Your task to perform on an android device: uninstall "PlayWell" Image 0: 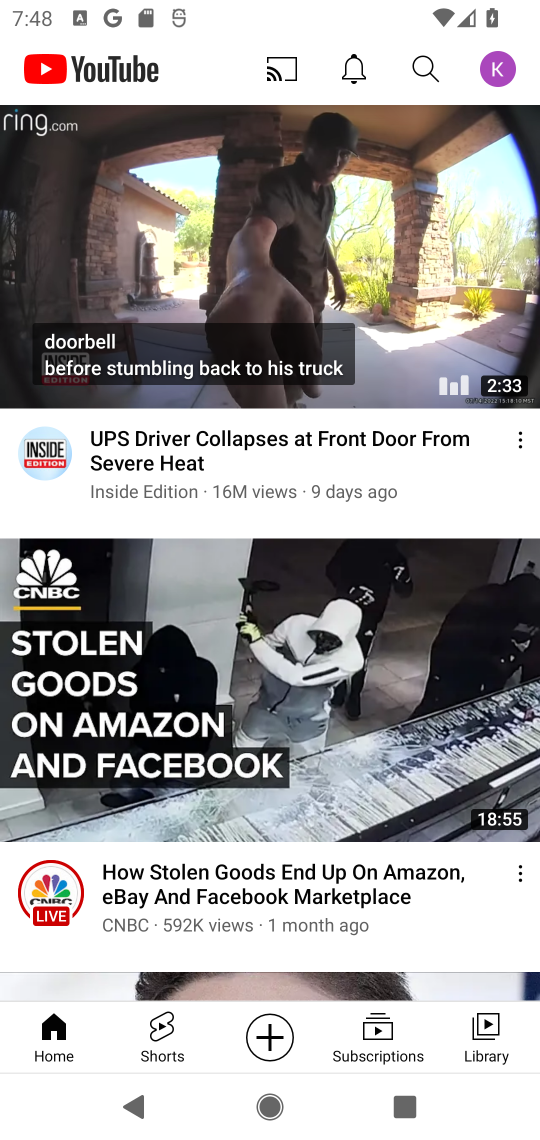
Step 0: press home button
Your task to perform on an android device: uninstall "PlayWell" Image 1: 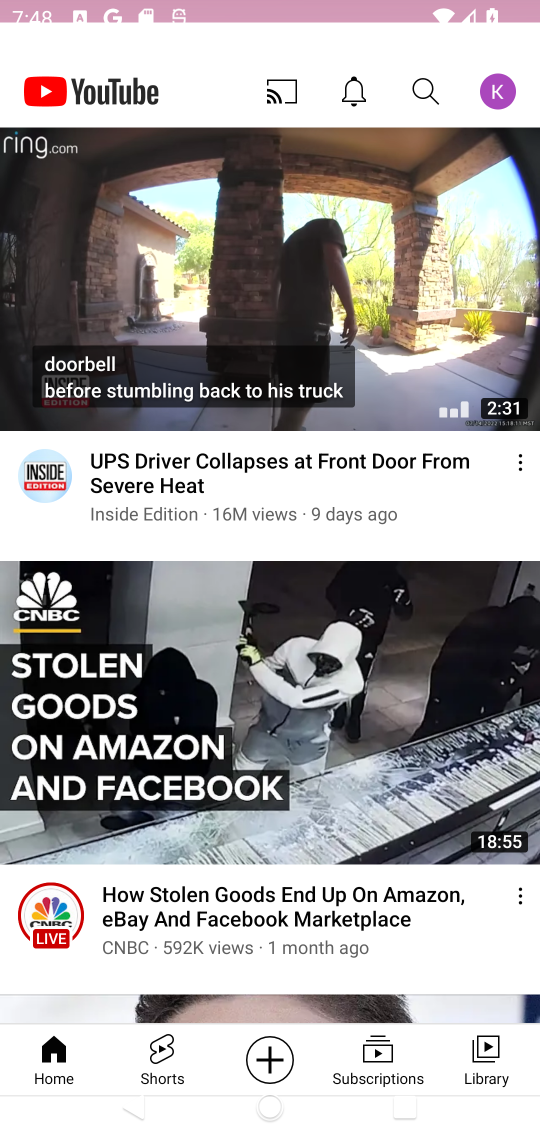
Step 1: press home button
Your task to perform on an android device: uninstall "PlayWell" Image 2: 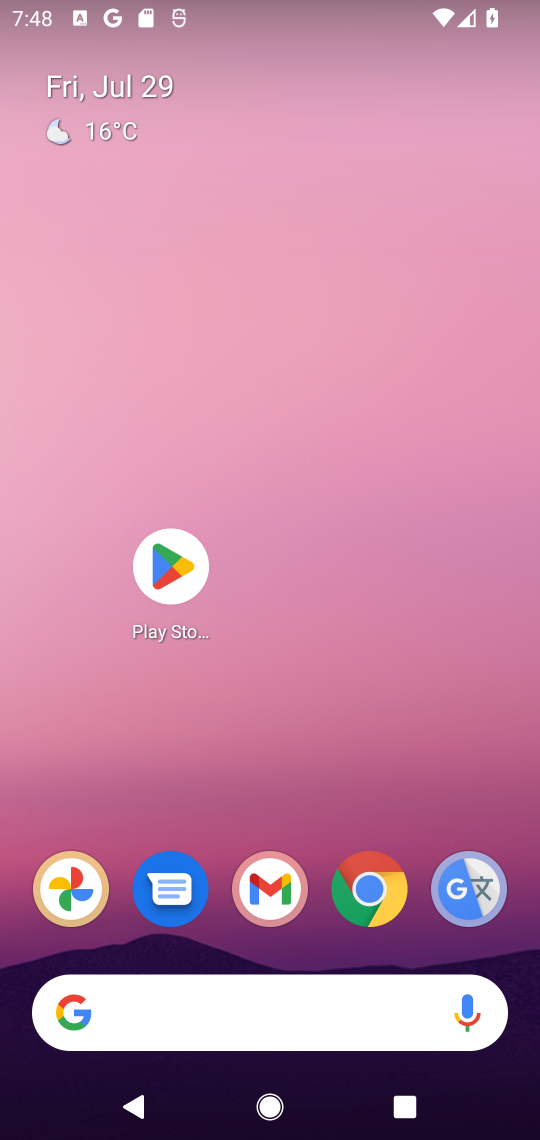
Step 2: click (162, 576)
Your task to perform on an android device: uninstall "PlayWell" Image 3: 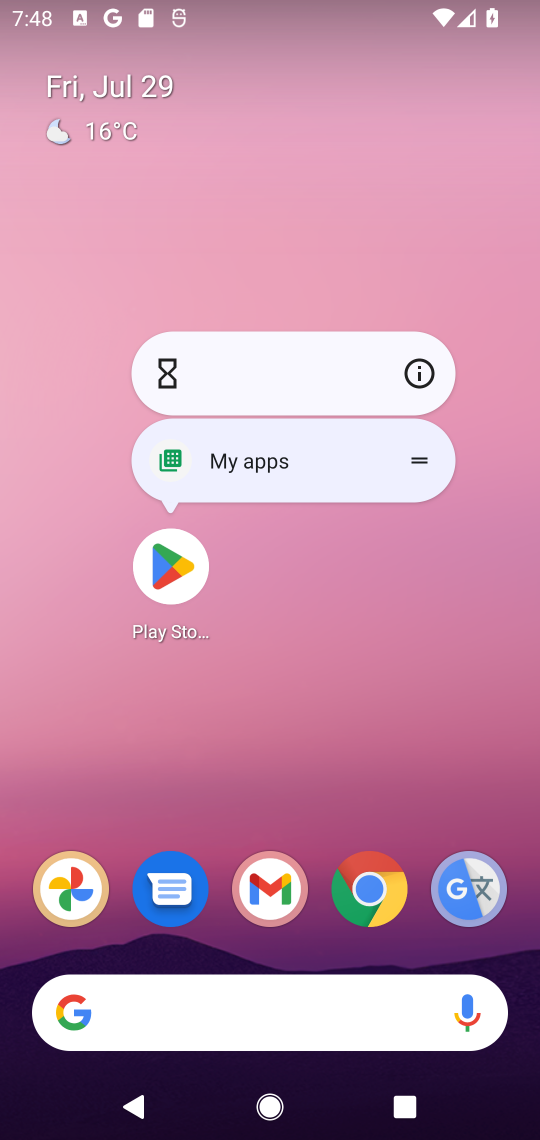
Step 3: click (162, 581)
Your task to perform on an android device: uninstall "PlayWell" Image 4: 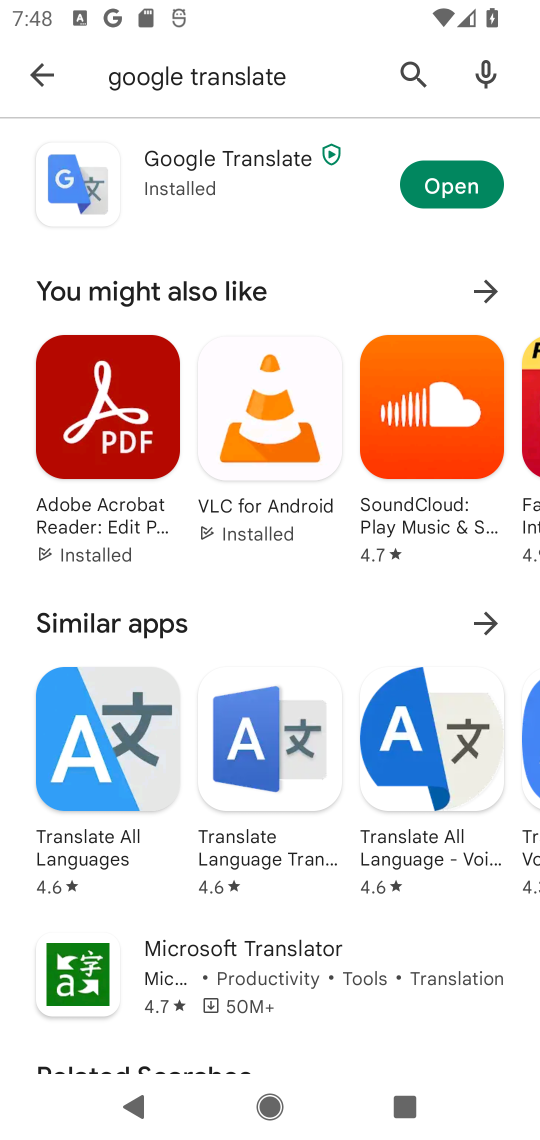
Step 4: click (409, 67)
Your task to perform on an android device: uninstall "PlayWell" Image 5: 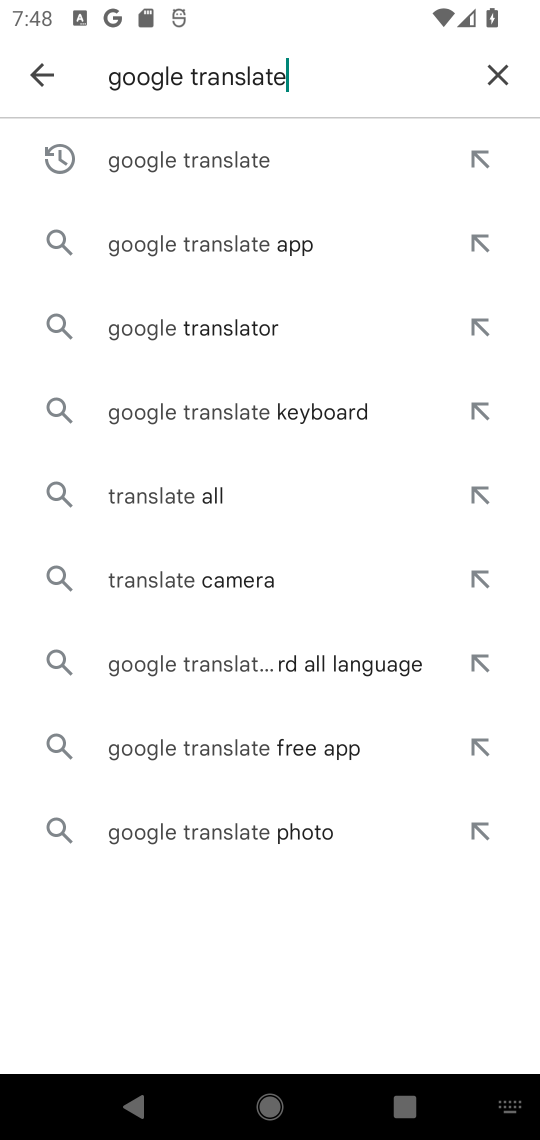
Step 5: click (501, 70)
Your task to perform on an android device: uninstall "PlayWell" Image 6: 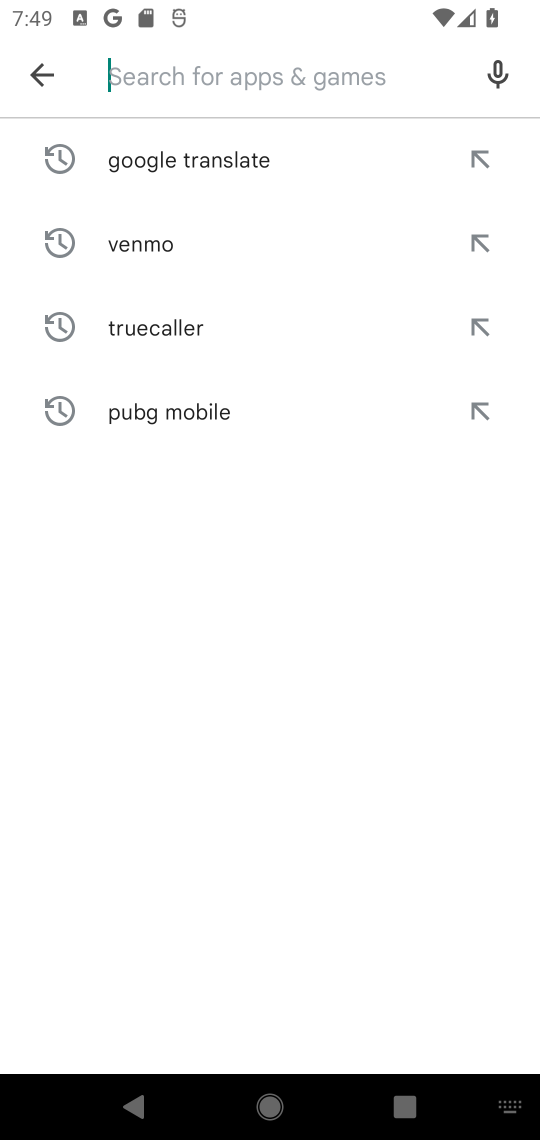
Step 6: type "PlayWell"
Your task to perform on an android device: uninstall "PlayWell" Image 7: 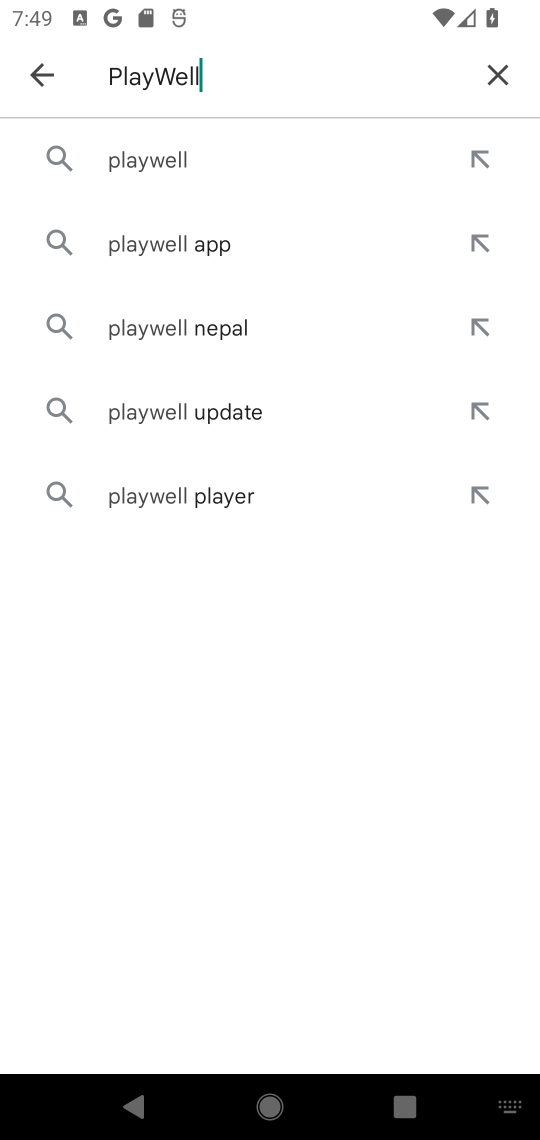
Step 7: click (168, 158)
Your task to perform on an android device: uninstall "PlayWell" Image 8: 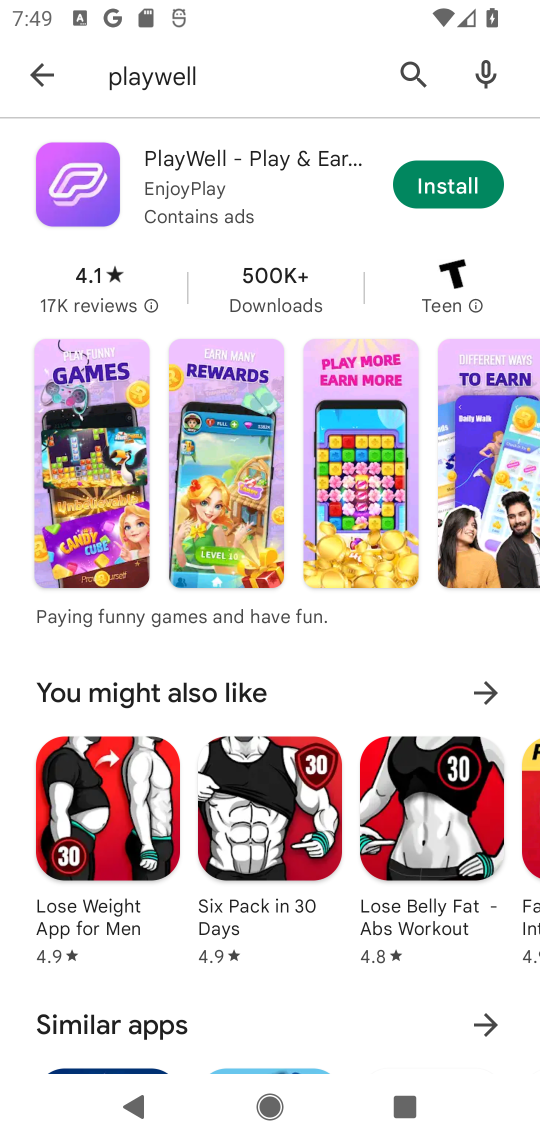
Step 8: task complete